Your task to perform on an android device: change timer sound Image 0: 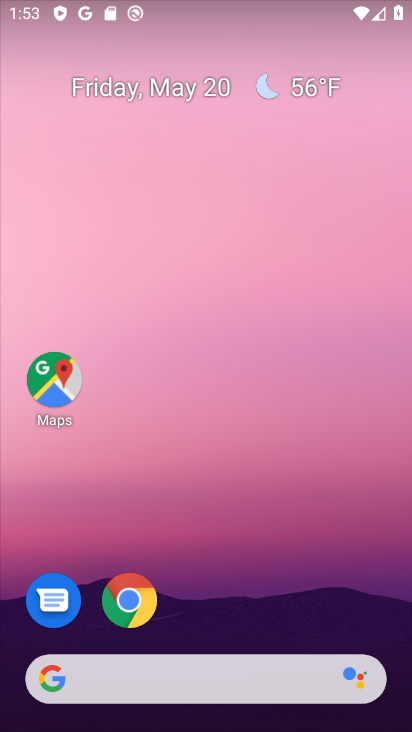
Step 0: drag from (204, 665) to (350, 78)
Your task to perform on an android device: change timer sound Image 1: 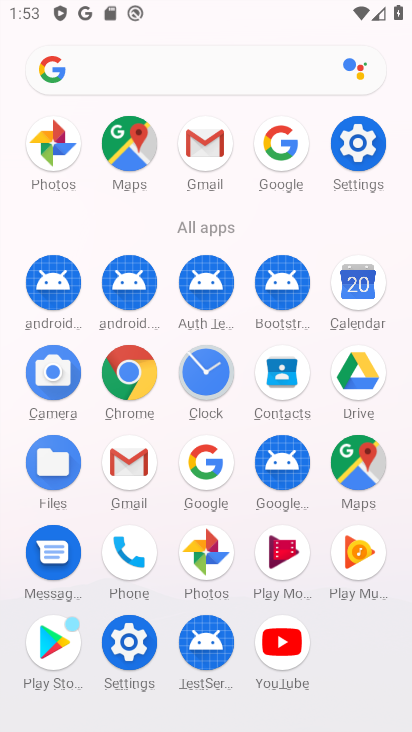
Step 1: click (214, 373)
Your task to perform on an android device: change timer sound Image 2: 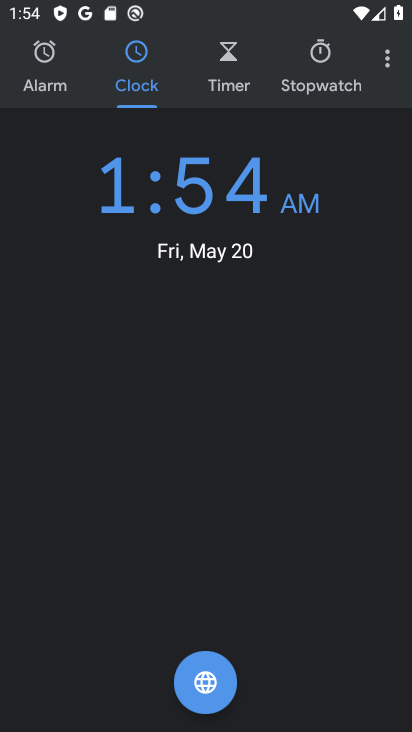
Step 2: click (384, 91)
Your task to perform on an android device: change timer sound Image 3: 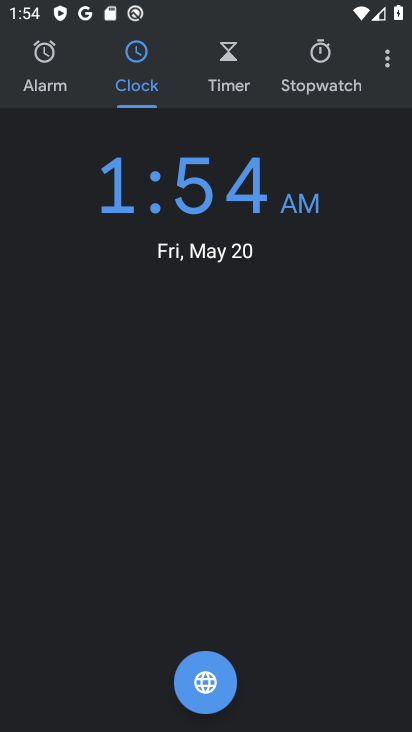
Step 3: click (389, 65)
Your task to perform on an android device: change timer sound Image 4: 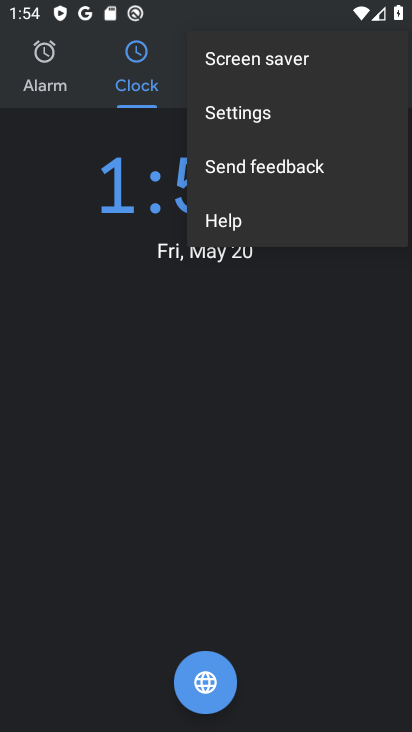
Step 4: click (269, 111)
Your task to perform on an android device: change timer sound Image 5: 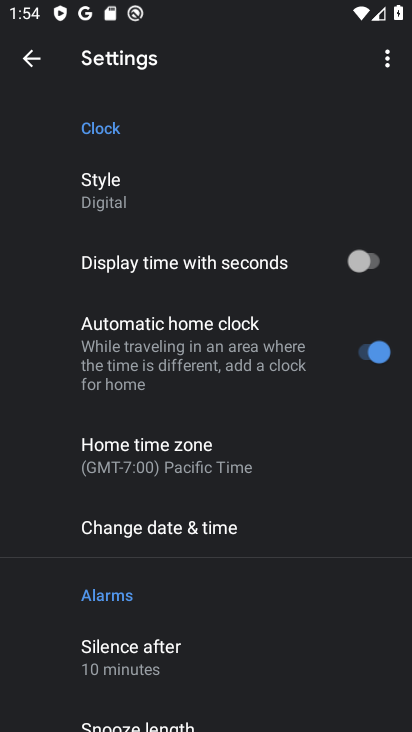
Step 5: drag from (184, 568) to (268, 198)
Your task to perform on an android device: change timer sound Image 6: 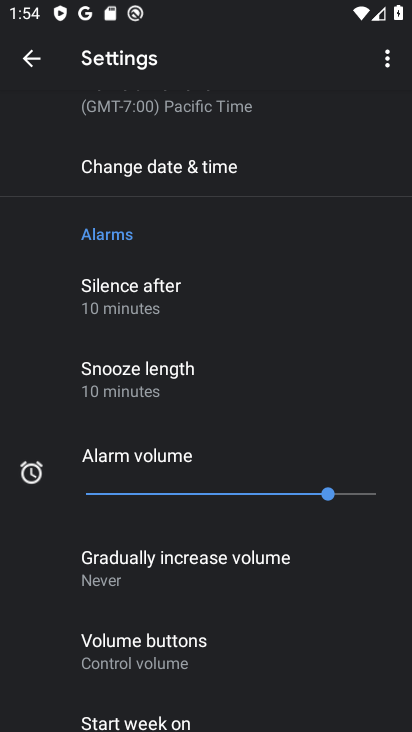
Step 6: drag from (210, 485) to (274, 214)
Your task to perform on an android device: change timer sound Image 7: 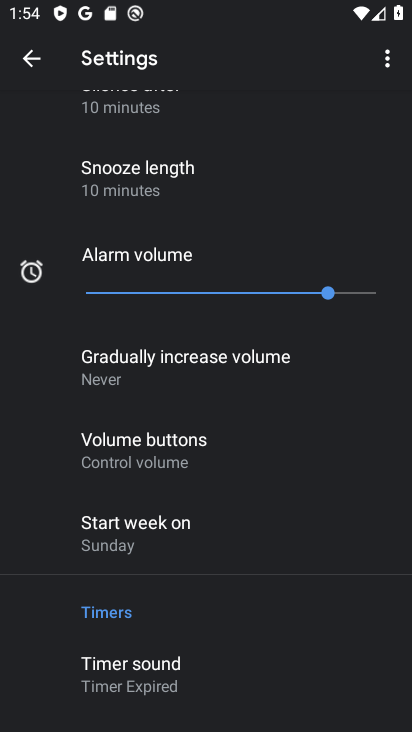
Step 7: click (173, 666)
Your task to perform on an android device: change timer sound Image 8: 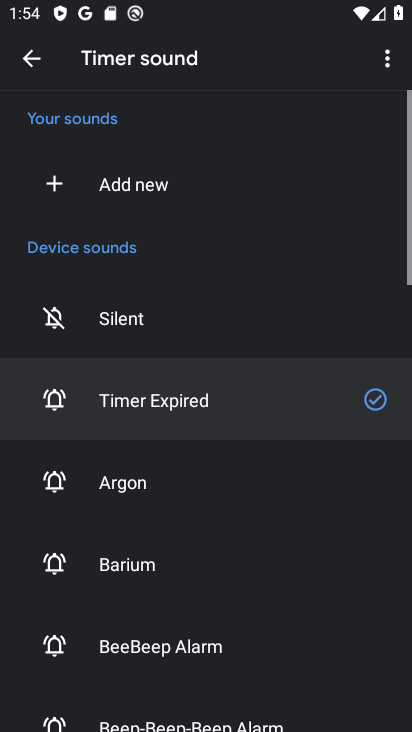
Step 8: click (181, 505)
Your task to perform on an android device: change timer sound Image 9: 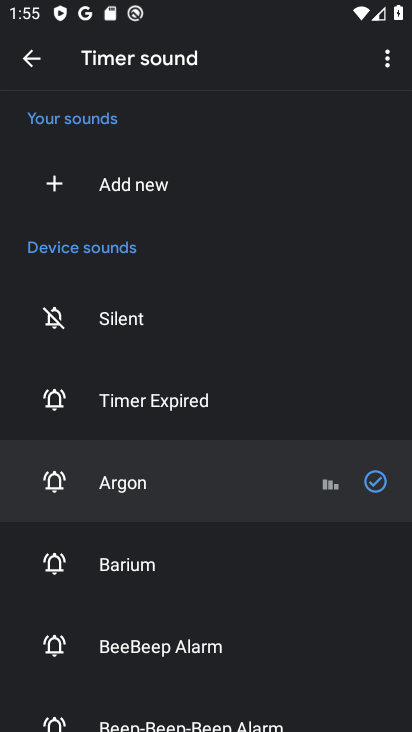
Step 9: task complete